Your task to perform on an android device: Open Google Chrome and open the bookmarks view Image 0: 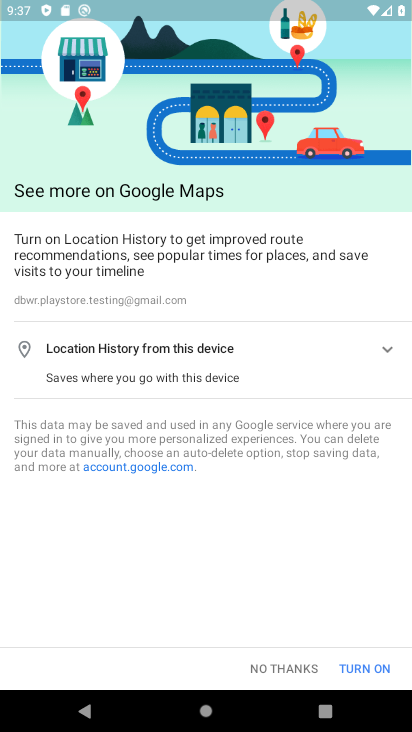
Step 0: press home button
Your task to perform on an android device: Open Google Chrome and open the bookmarks view Image 1: 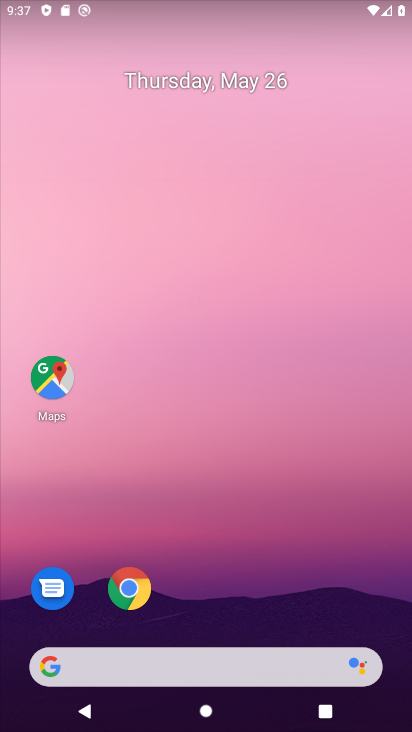
Step 1: click (127, 593)
Your task to perform on an android device: Open Google Chrome and open the bookmarks view Image 2: 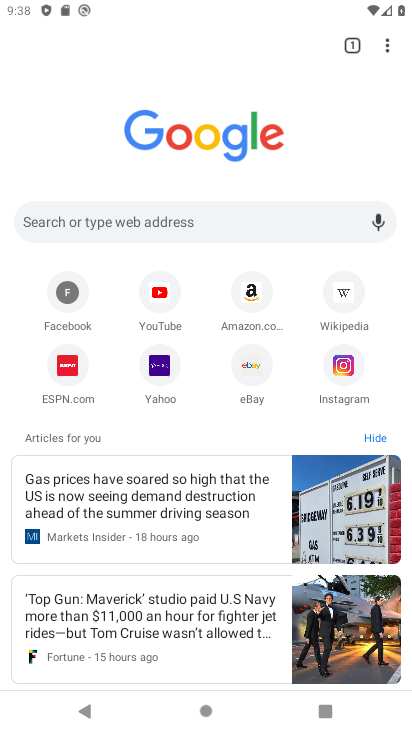
Step 2: click (385, 53)
Your task to perform on an android device: Open Google Chrome and open the bookmarks view Image 3: 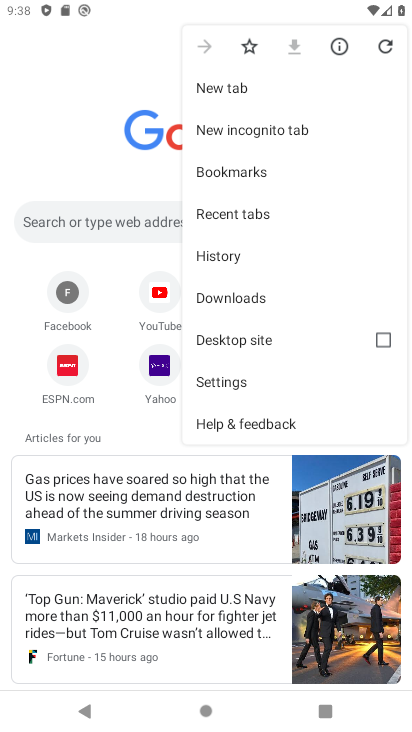
Step 3: click (242, 170)
Your task to perform on an android device: Open Google Chrome and open the bookmarks view Image 4: 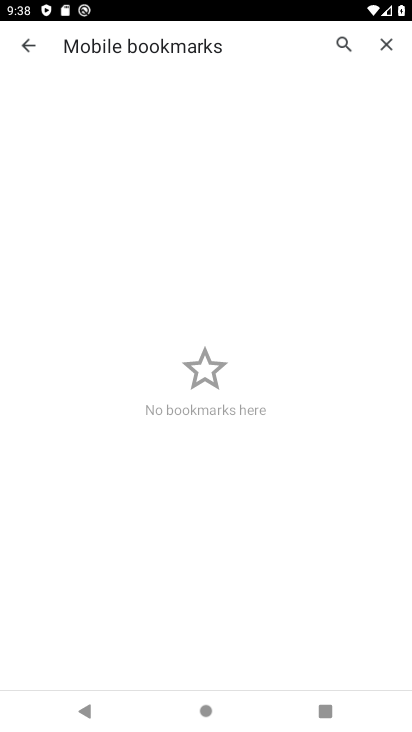
Step 4: task complete